Your task to perform on an android device: add a contact Image 0: 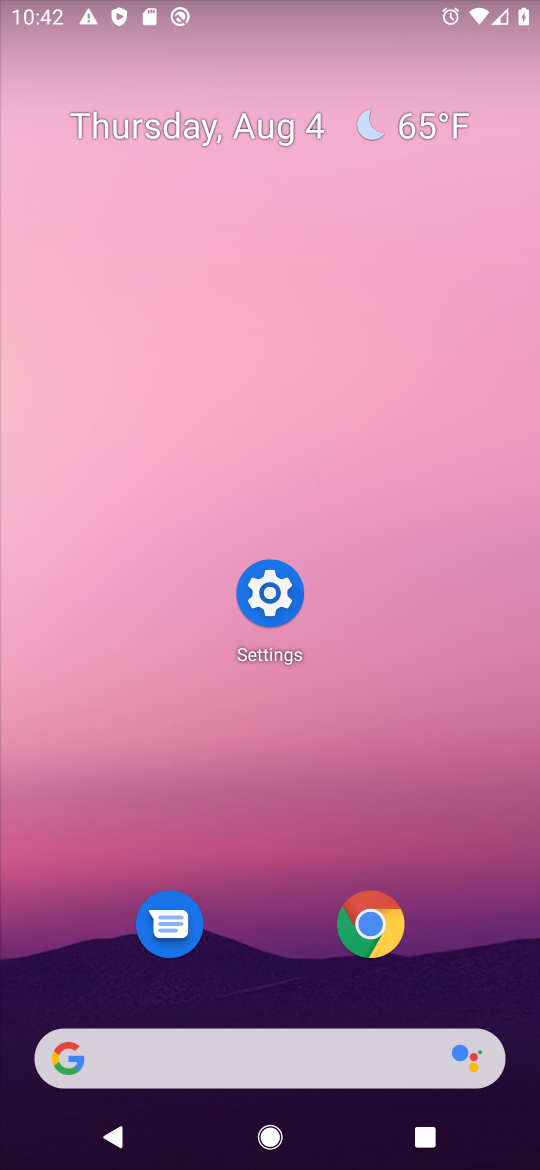
Step 0: press home button
Your task to perform on an android device: add a contact Image 1: 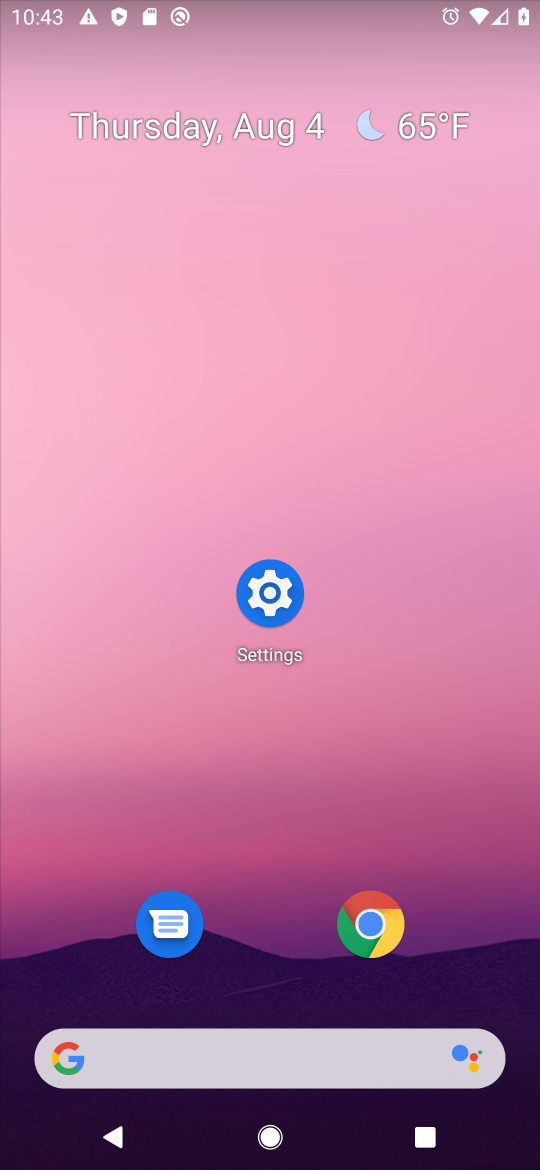
Step 1: drag from (220, 1047) to (401, 84)
Your task to perform on an android device: add a contact Image 2: 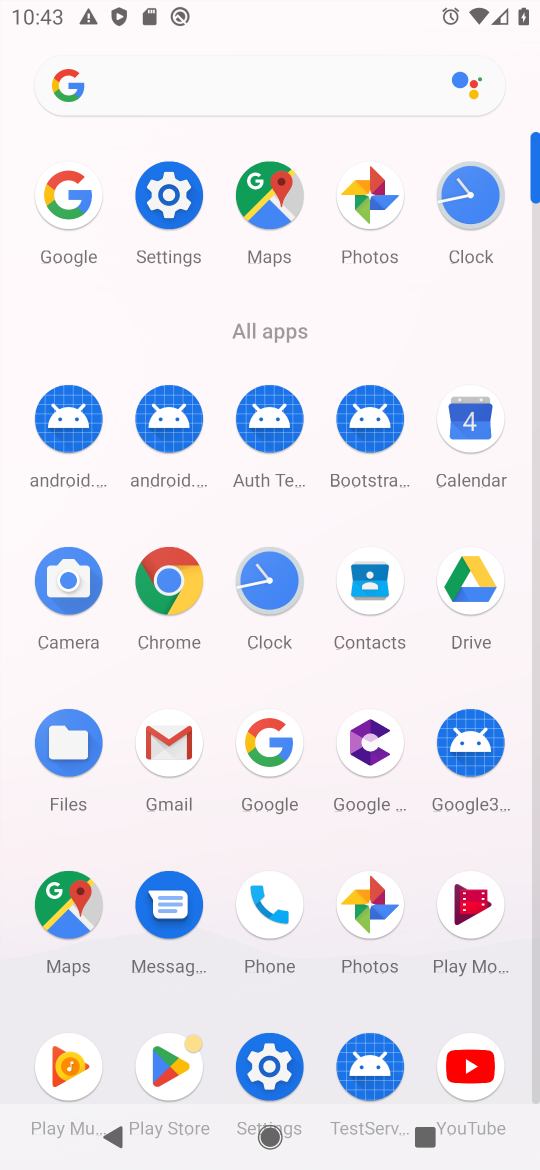
Step 2: click (368, 602)
Your task to perform on an android device: add a contact Image 3: 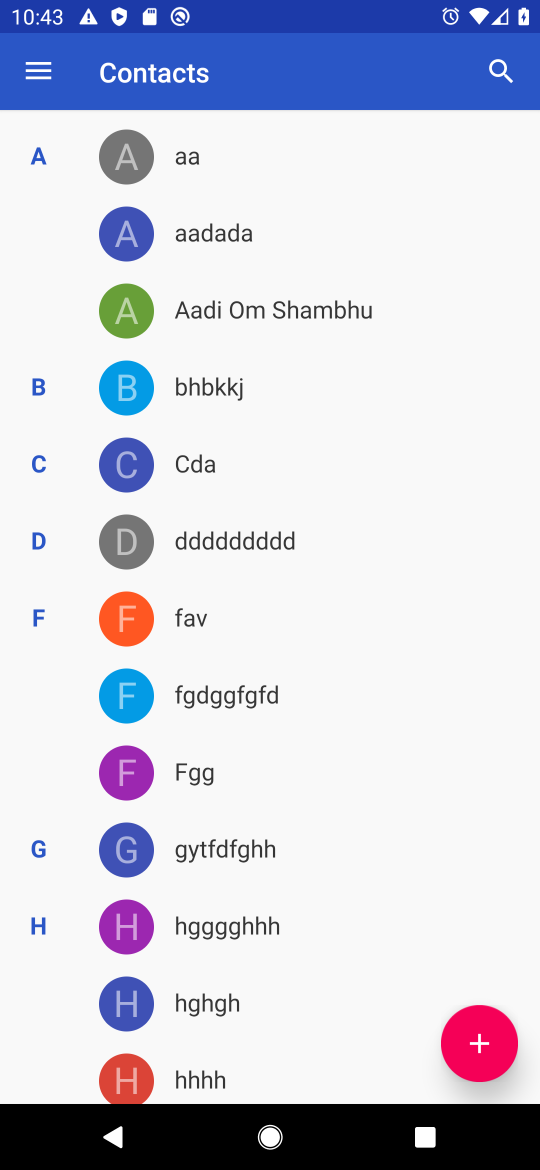
Step 3: click (460, 1039)
Your task to perform on an android device: add a contact Image 4: 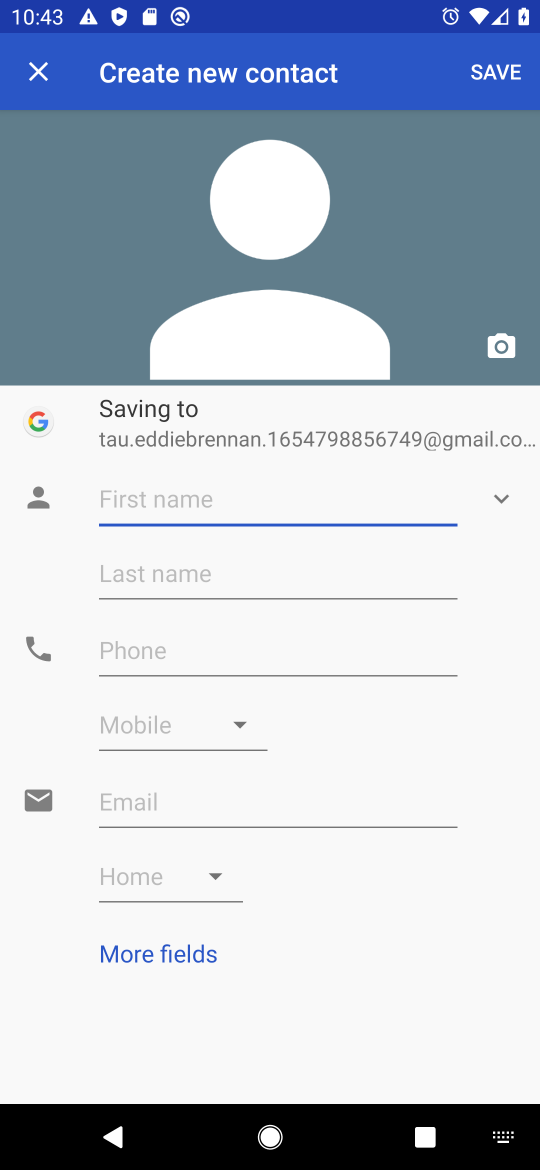
Step 4: click (101, 486)
Your task to perform on an android device: add a contact Image 5: 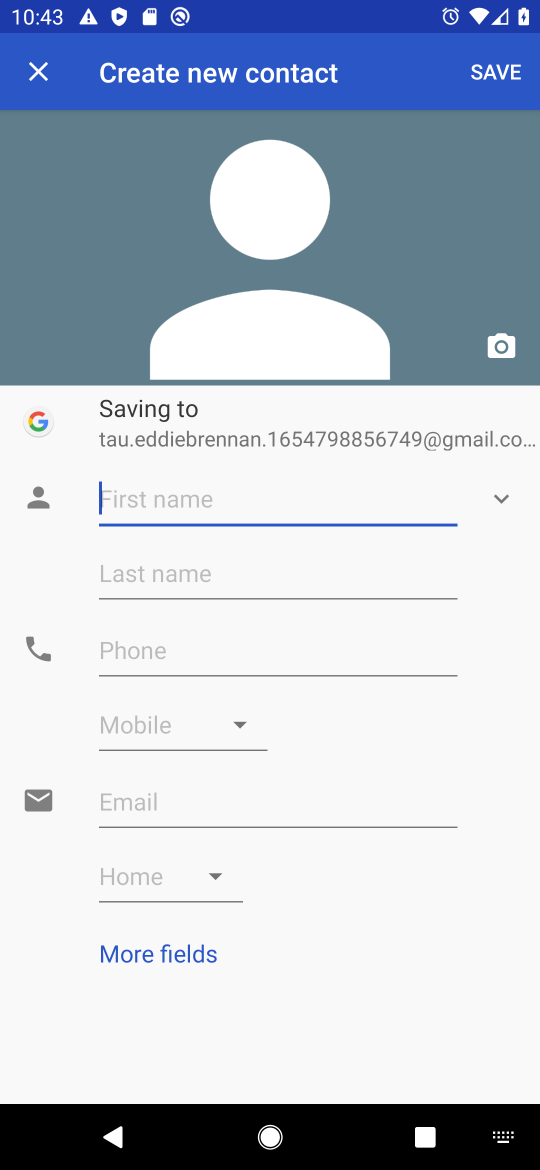
Step 5: type "nqieyrbfb"
Your task to perform on an android device: add a contact Image 6: 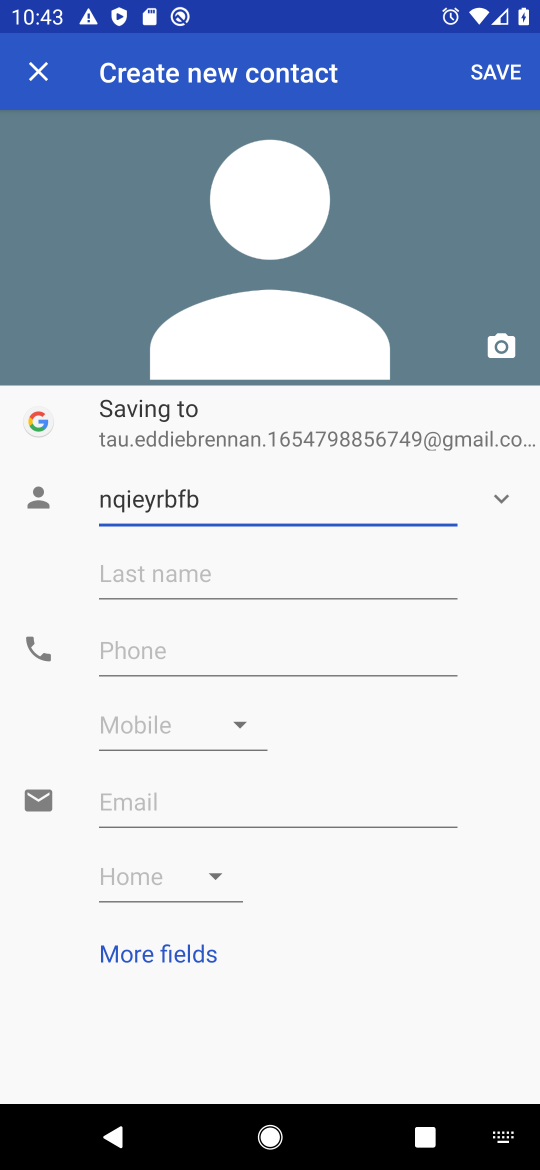
Step 6: click (135, 641)
Your task to perform on an android device: add a contact Image 7: 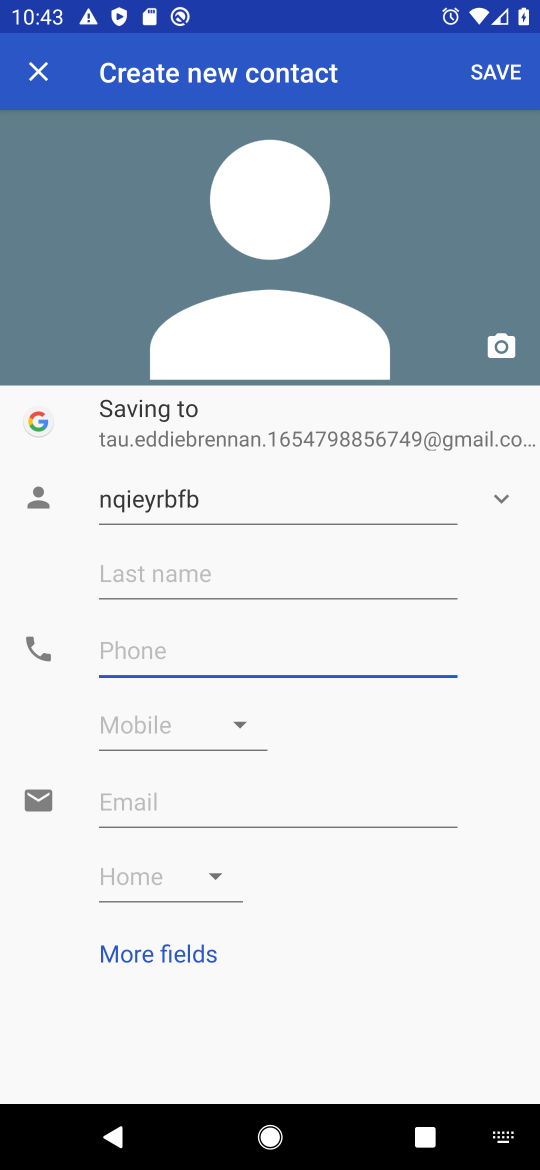
Step 7: type "10384656"
Your task to perform on an android device: add a contact Image 8: 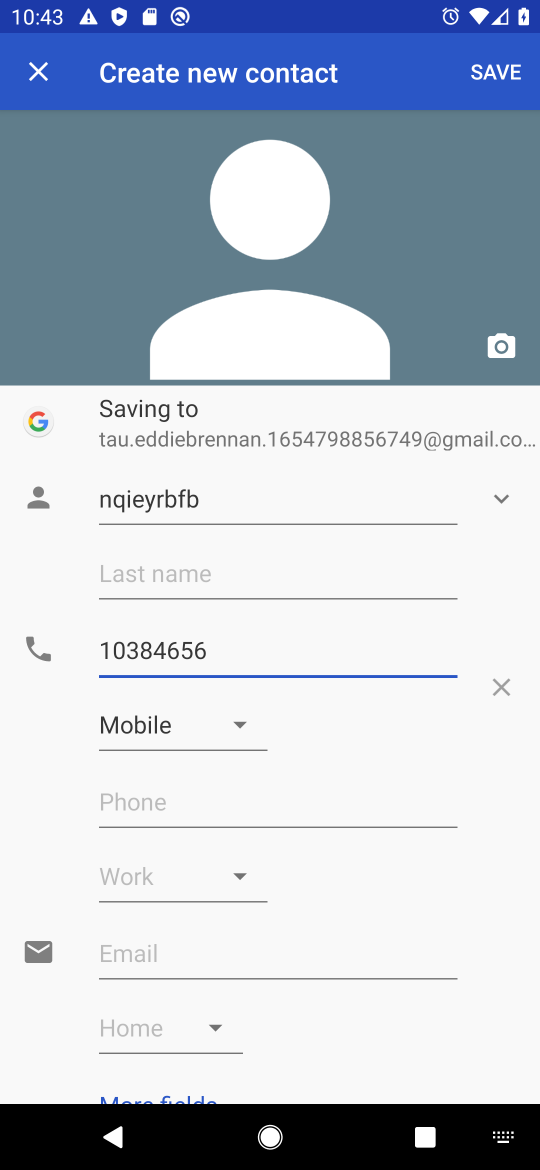
Step 8: click (489, 70)
Your task to perform on an android device: add a contact Image 9: 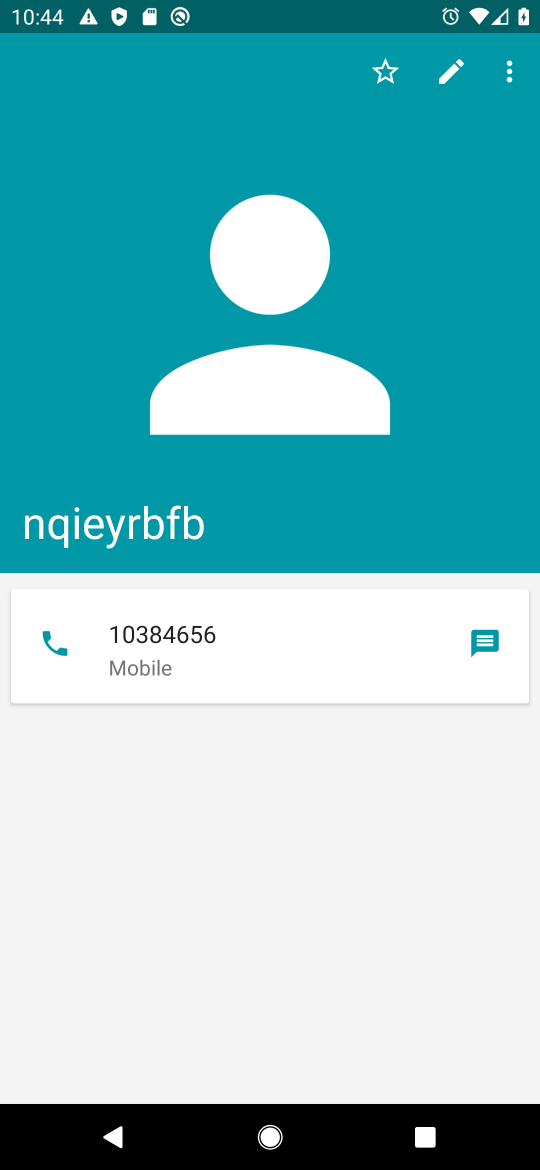
Step 9: task complete